Your task to perform on an android device: Add macbook air to the cart on newegg.com, then select checkout. Image 0: 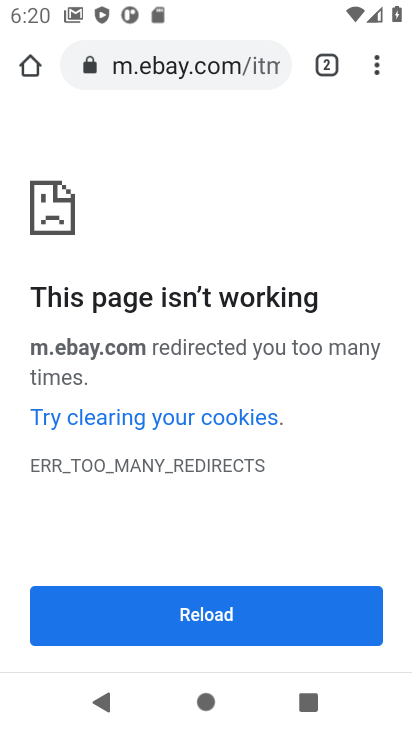
Step 0: press home button
Your task to perform on an android device: Add macbook air to the cart on newegg.com, then select checkout. Image 1: 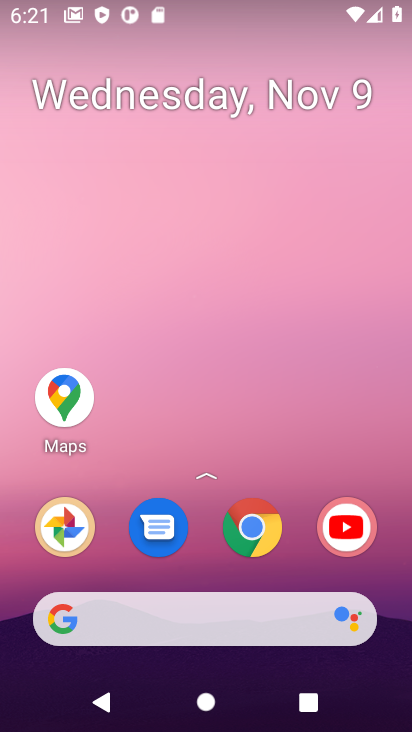
Step 1: click (248, 545)
Your task to perform on an android device: Add macbook air to the cart on newegg.com, then select checkout. Image 2: 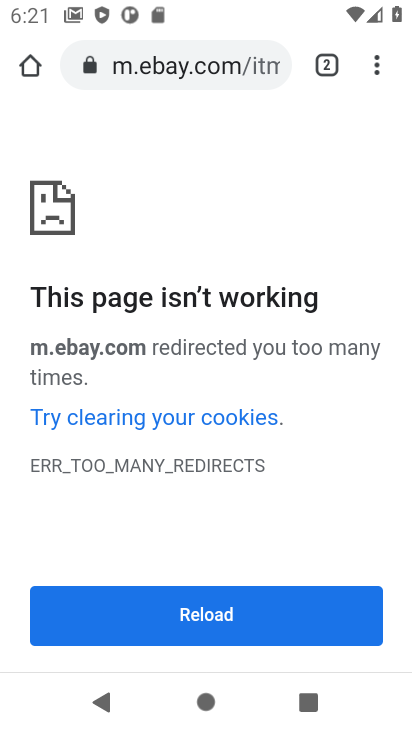
Step 2: click (187, 58)
Your task to perform on an android device: Add macbook air to the cart on newegg.com, then select checkout. Image 3: 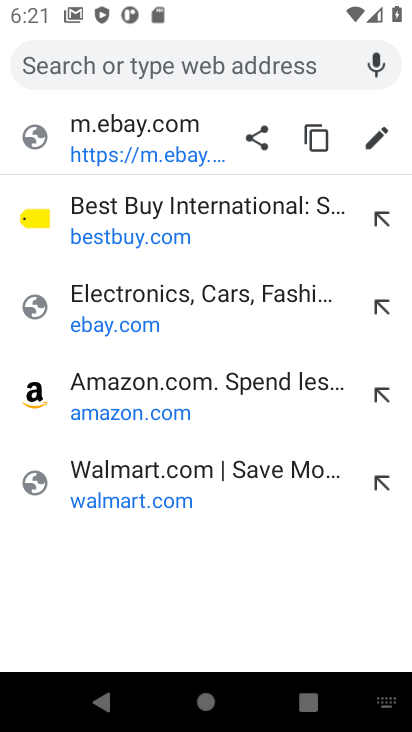
Step 3: type "newegg.com"
Your task to perform on an android device: Add macbook air to the cart on newegg.com, then select checkout. Image 4: 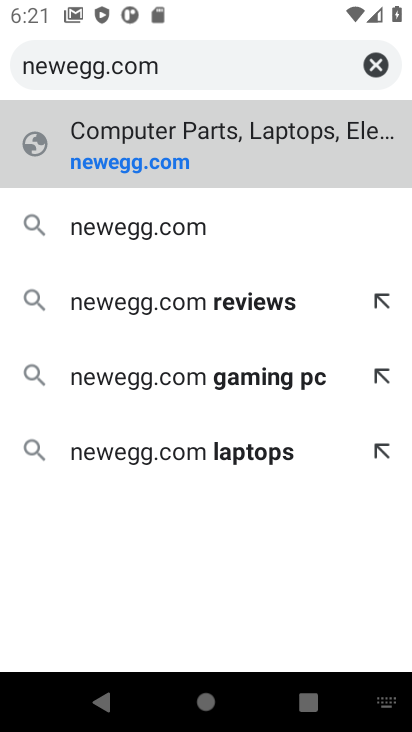
Step 4: click (153, 162)
Your task to perform on an android device: Add macbook air to the cart on newegg.com, then select checkout. Image 5: 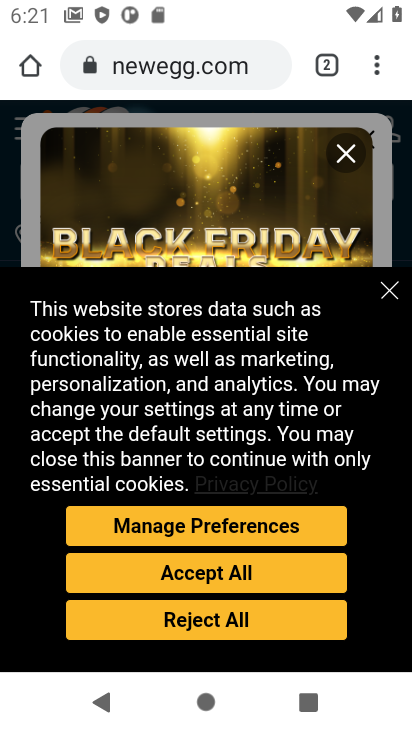
Step 5: click (347, 149)
Your task to perform on an android device: Add macbook air to the cart on newegg.com, then select checkout. Image 6: 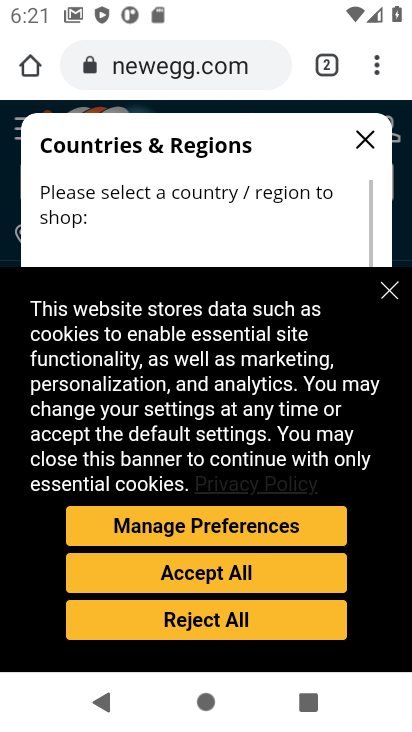
Step 6: click (390, 289)
Your task to perform on an android device: Add macbook air to the cart on newegg.com, then select checkout. Image 7: 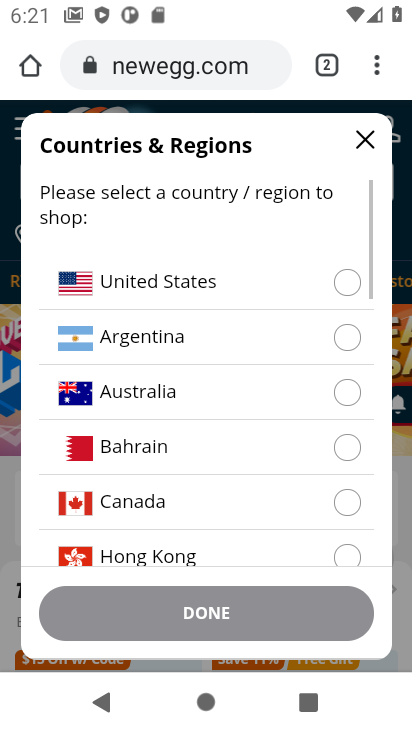
Step 7: click (152, 281)
Your task to perform on an android device: Add macbook air to the cart on newegg.com, then select checkout. Image 8: 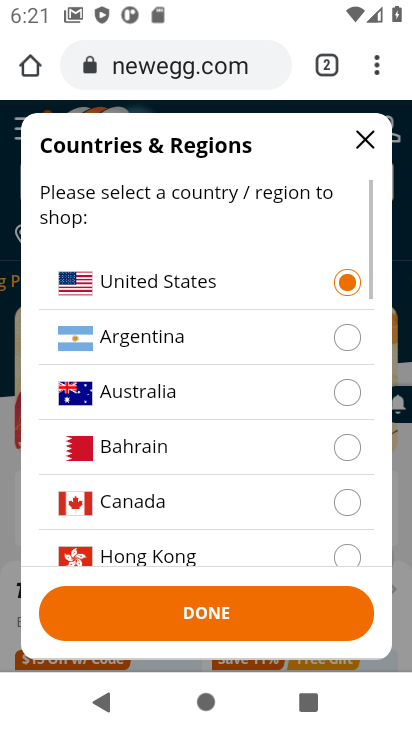
Step 8: click (151, 601)
Your task to perform on an android device: Add macbook air to the cart on newegg.com, then select checkout. Image 9: 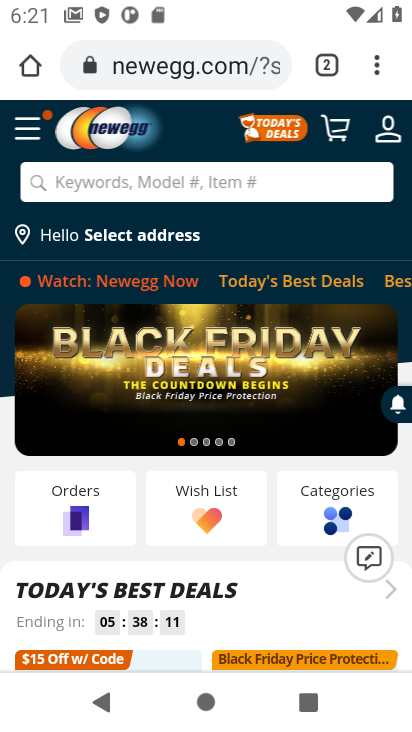
Step 9: click (187, 182)
Your task to perform on an android device: Add macbook air to the cart on newegg.com, then select checkout. Image 10: 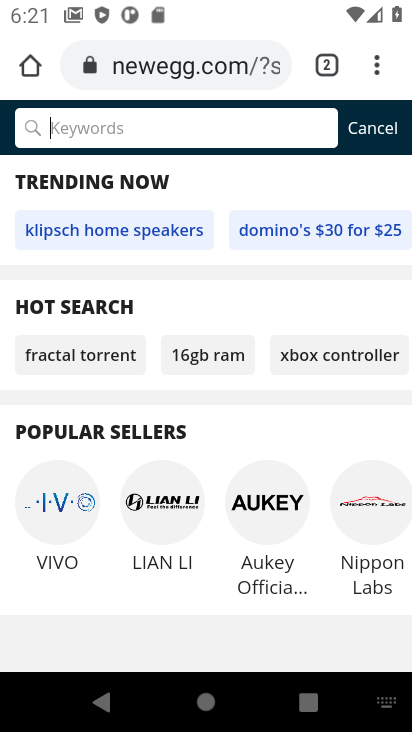
Step 10: type "macbook air"
Your task to perform on an android device: Add macbook air to the cart on newegg.com, then select checkout. Image 11: 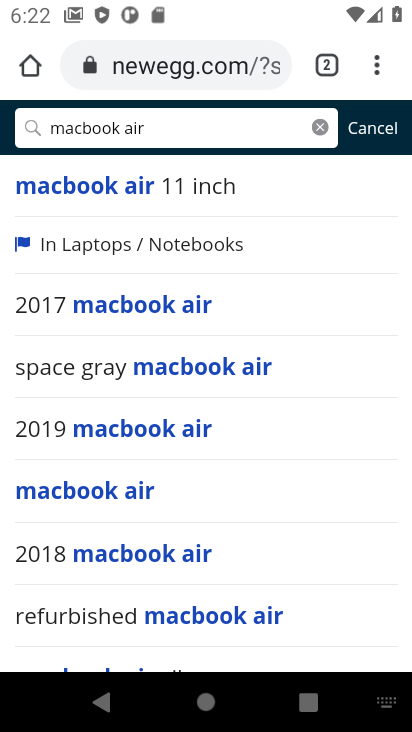
Step 11: click (90, 496)
Your task to perform on an android device: Add macbook air to the cart on newegg.com, then select checkout. Image 12: 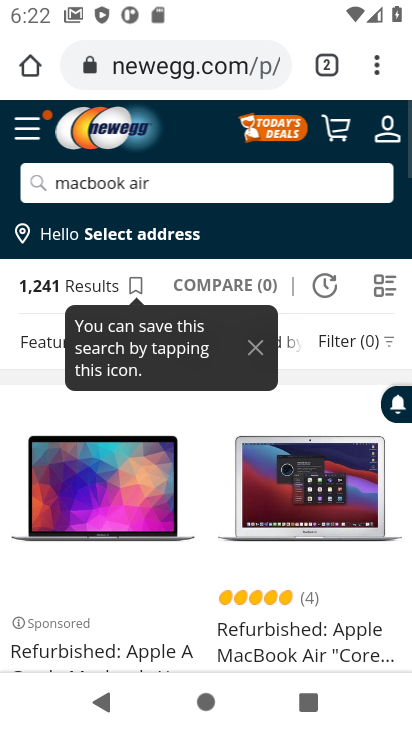
Step 12: drag from (100, 518) to (120, 215)
Your task to perform on an android device: Add macbook air to the cart on newegg.com, then select checkout. Image 13: 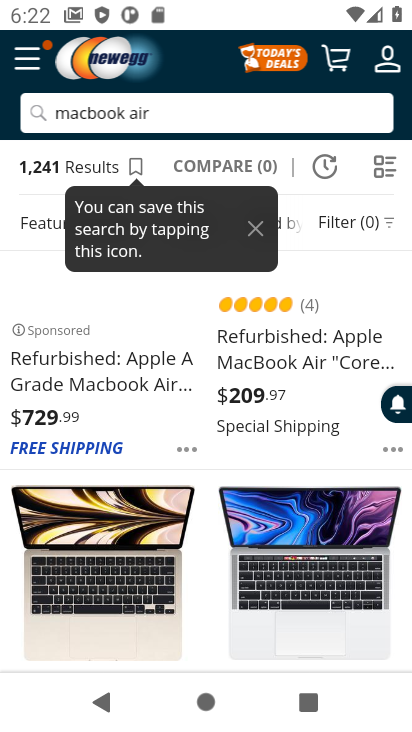
Step 13: click (266, 336)
Your task to perform on an android device: Add macbook air to the cart on newegg.com, then select checkout. Image 14: 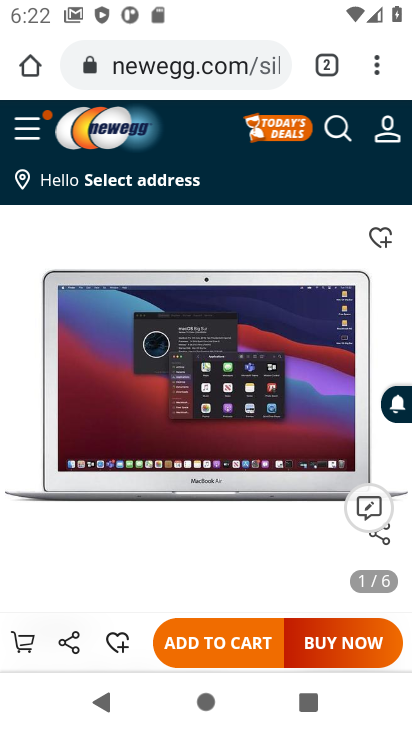
Step 14: click (216, 641)
Your task to perform on an android device: Add macbook air to the cart on newegg.com, then select checkout. Image 15: 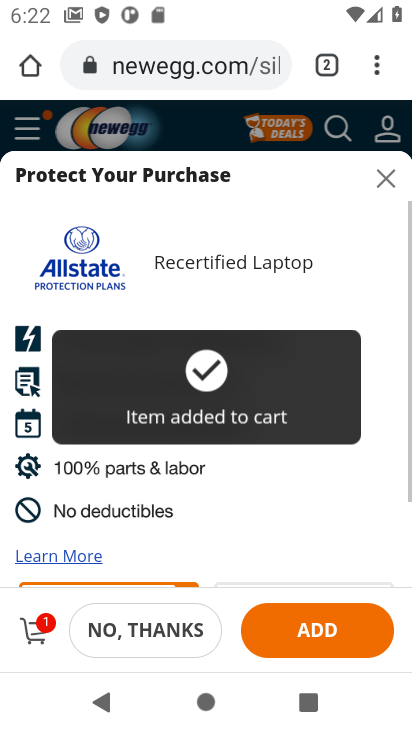
Step 15: click (19, 638)
Your task to perform on an android device: Add macbook air to the cart on newegg.com, then select checkout. Image 16: 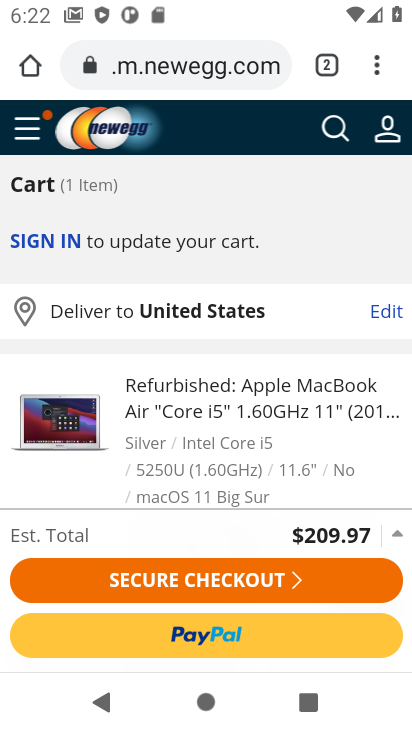
Step 16: click (162, 625)
Your task to perform on an android device: Add macbook air to the cart on newegg.com, then select checkout. Image 17: 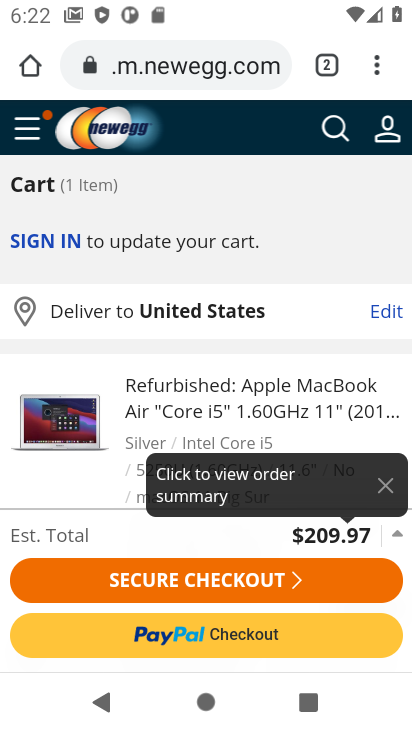
Step 17: click (183, 586)
Your task to perform on an android device: Add macbook air to the cart on newegg.com, then select checkout. Image 18: 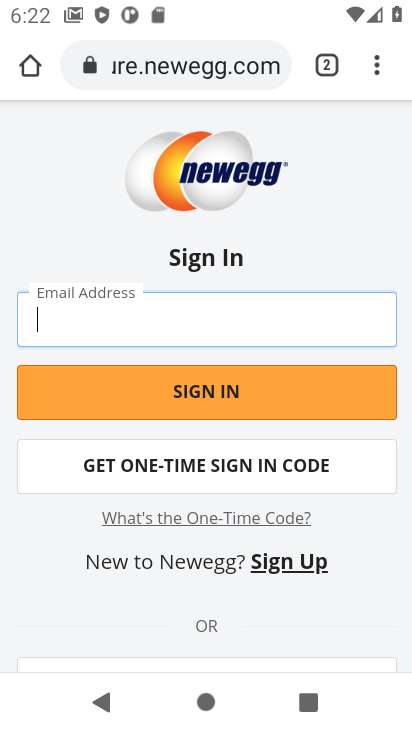
Step 18: task complete